Your task to perform on an android device: turn on wifi Image 0: 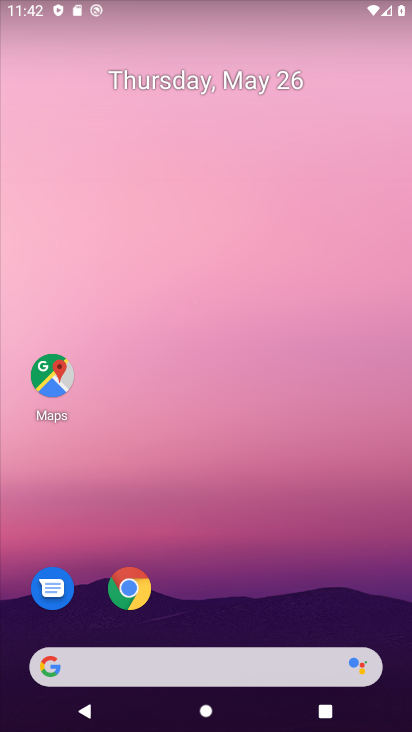
Step 0: drag from (208, 646) to (260, 7)
Your task to perform on an android device: turn on wifi Image 1: 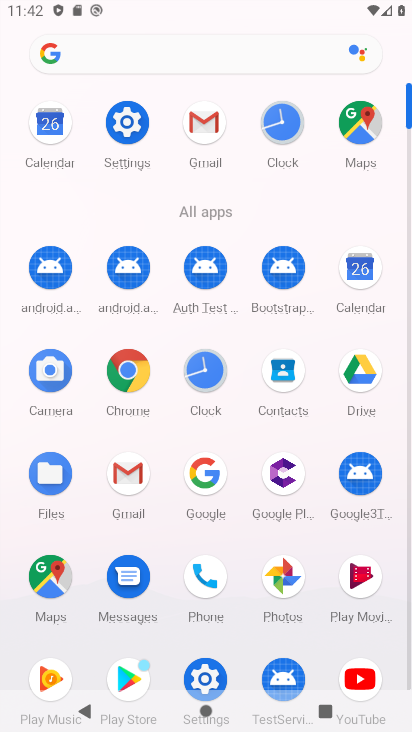
Step 1: click (206, 671)
Your task to perform on an android device: turn on wifi Image 2: 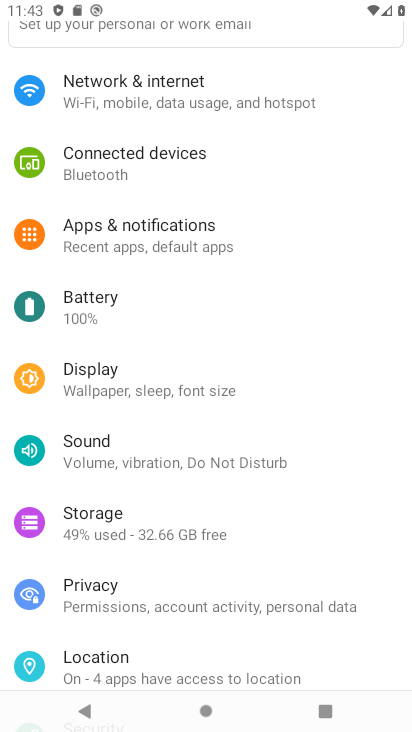
Step 2: click (138, 82)
Your task to perform on an android device: turn on wifi Image 3: 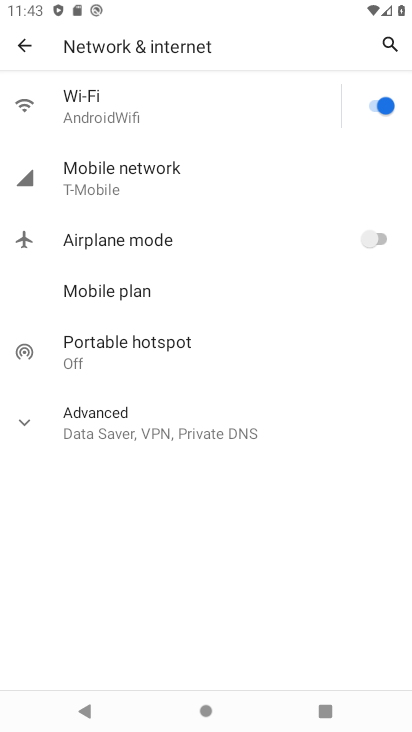
Step 3: task complete